Your task to perform on an android device: change keyboard looks Image 0: 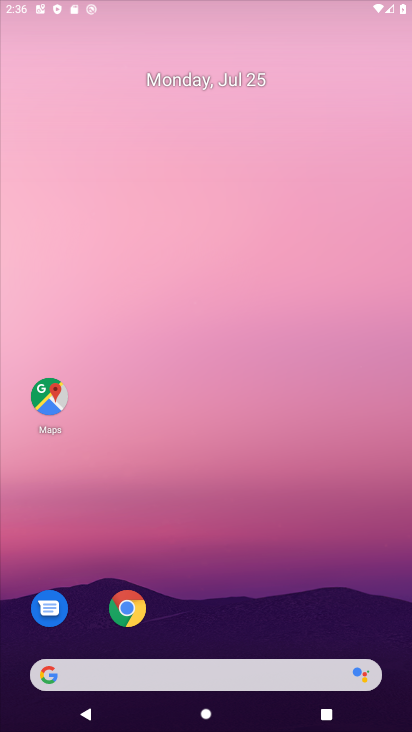
Step 0: drag from (273, 468) to (225, 162)
Your task to perform on an android device: change keyboard looks Image 1: 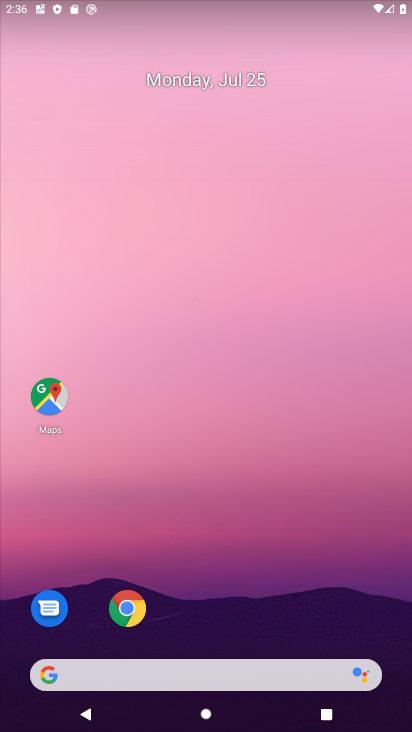
Step 1: drag from (202, 624) to (182, 199)
Your task to perform on an android device: change keyboard looks Image 2: 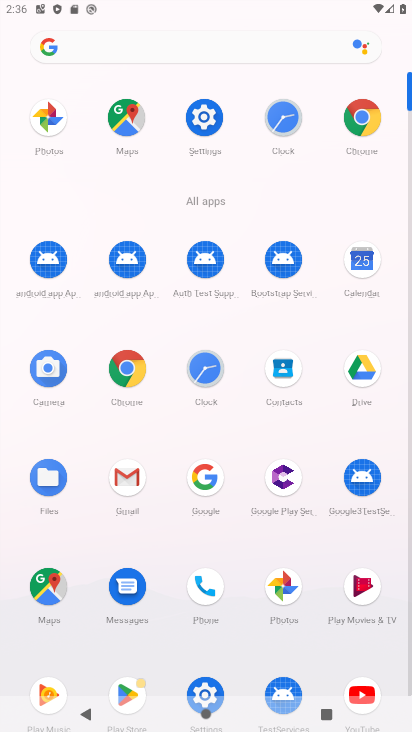
Step 2: click (200, 137)
Your task to perform on an android device: change keyboard looks Image 3: 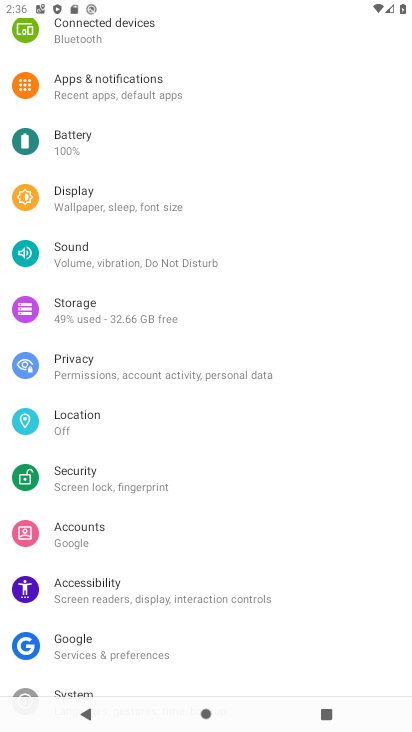
Step 3: drag from (182, 647) to (192, 249)
Your task to perform on an android device: change keyboard looks Image 4: 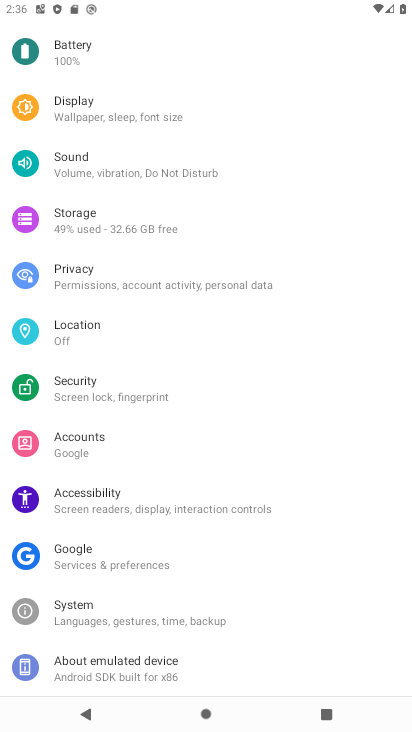
Step 4: click (161, 605)
Your task to perform on an android device: change keyboard looks Image 5: 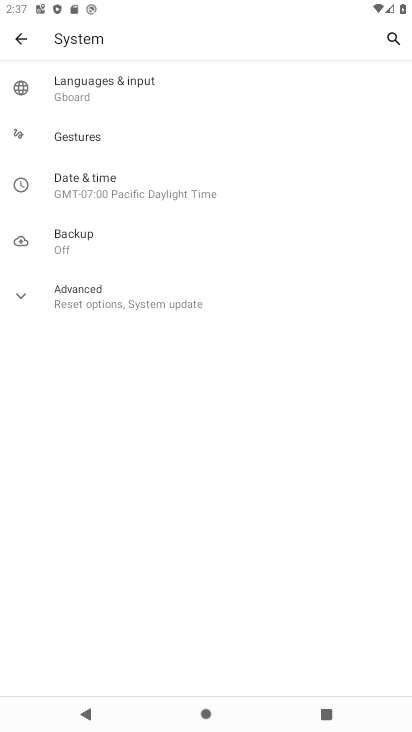
Step 5: click (168, 84)
Your task to perform on an android device: change keyboard looks Image 6: 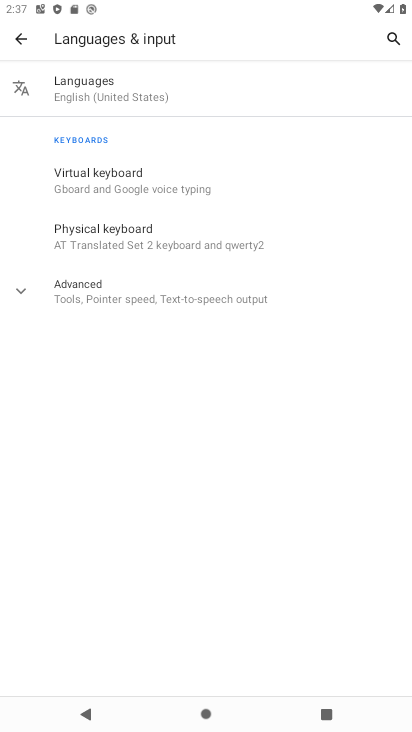
Step 6: click (160, 172)
Your task to perform on an android device: change keyboard looks Image 7: 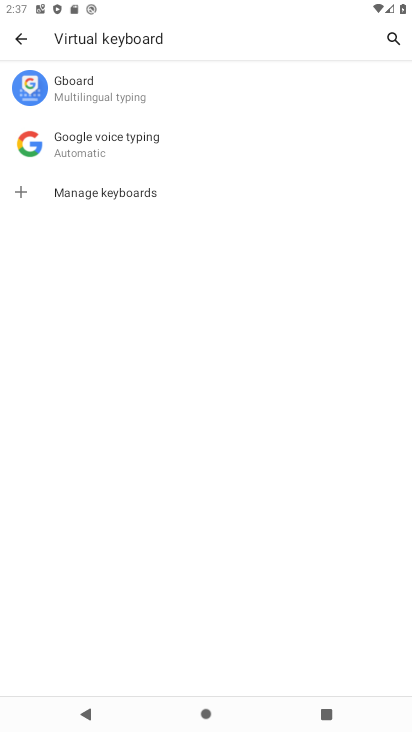
Step 7: click (141, 96)
Your task to perform on an android device: change keyboard looks Image 8: 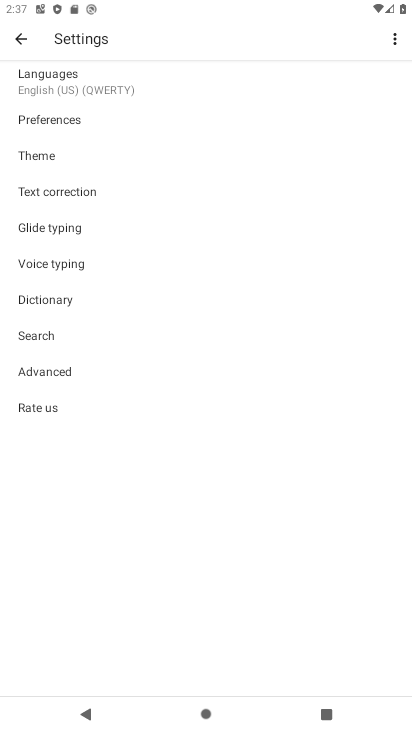
Step 8: click (148, 149)
Your task to perform on an android device: change keyboard looks Image 9: 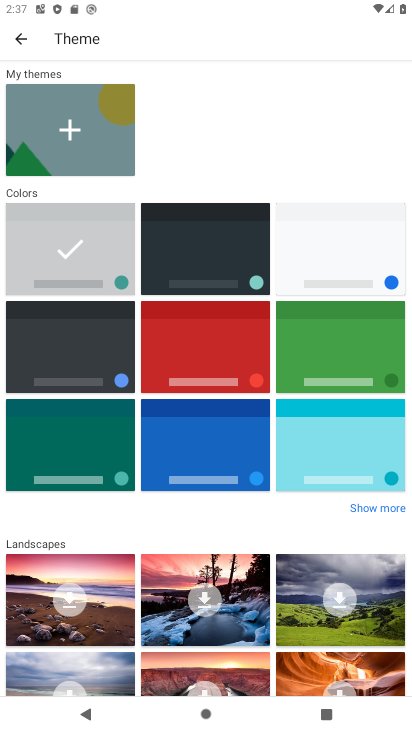
Step 9: click (189, 217)
Your task to perform on an android device: change keyboard looks Image 10: 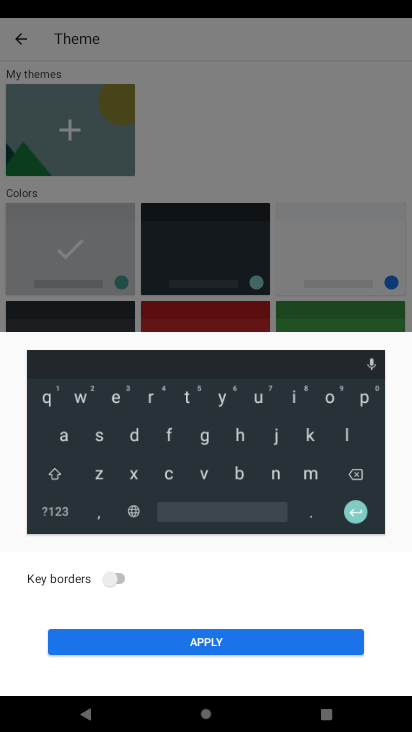
Step 10: click (262, 636)
Your task to perform on an android device: change keyboard looks Image 11: 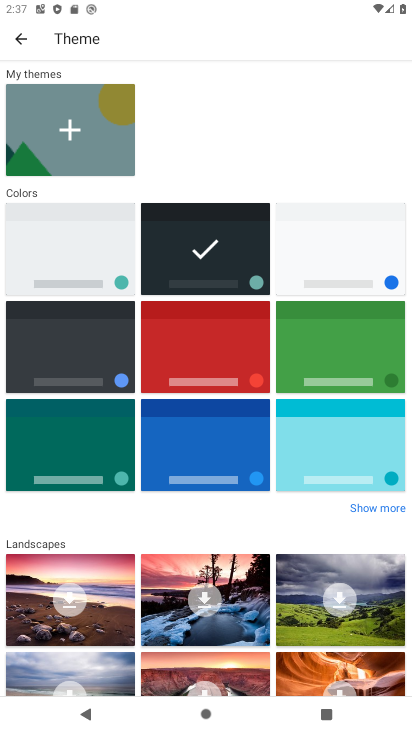
Step 11: task complete